Your task to perform on an android device: turn off airplane mode Image 0: 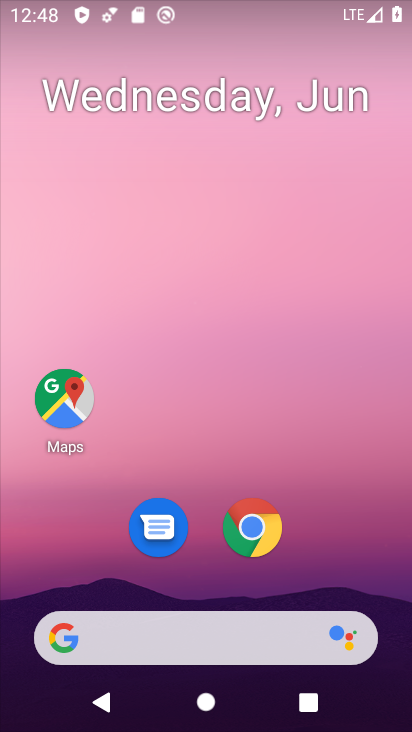
Step 0: drag from (136, 14) to (104, 474)
Your task to perform on an android device: turn off airplane mode Image 1: 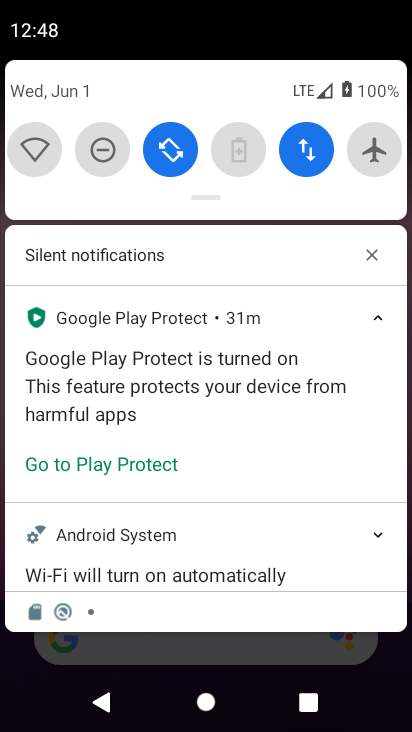
Step 1: click (371, 160)
Your task to perform on an android device: turn off airplane mode Image 2: 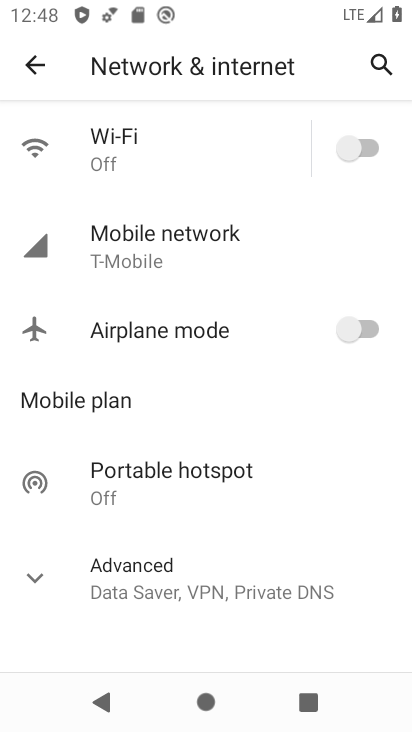
Step 2: task complete